Your task to perform on an android device: open app "Google News" Image 0: 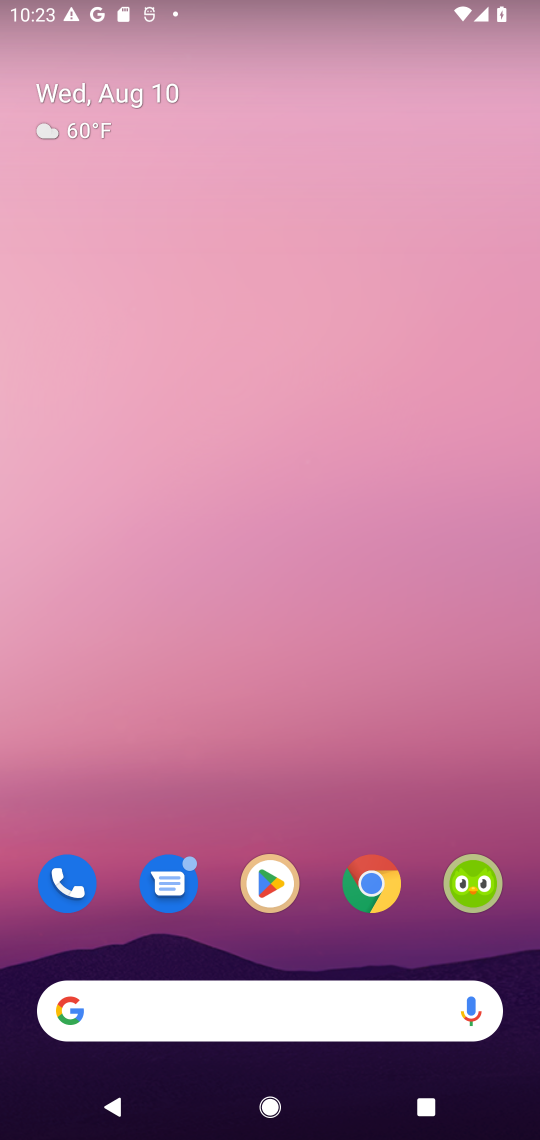
Step 0: drag from (404, 638) to (370, 74)
Your task to perform on an android device: open app "Google News" Image 1: 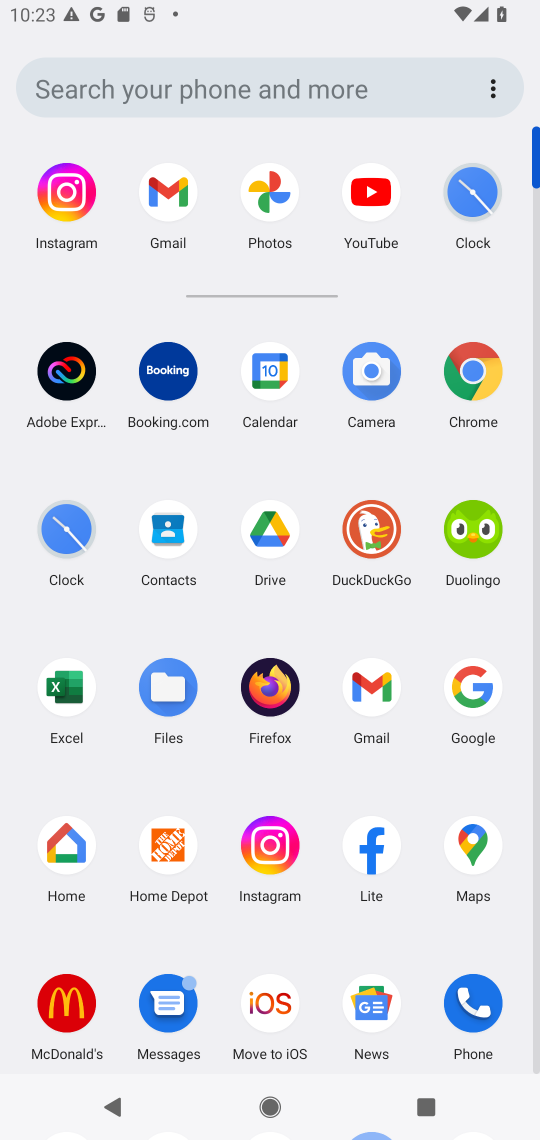
Step 1: drag from (515, 933) to (517, 469)
Your task to perform on an android device: open app "Google News" Image 2: 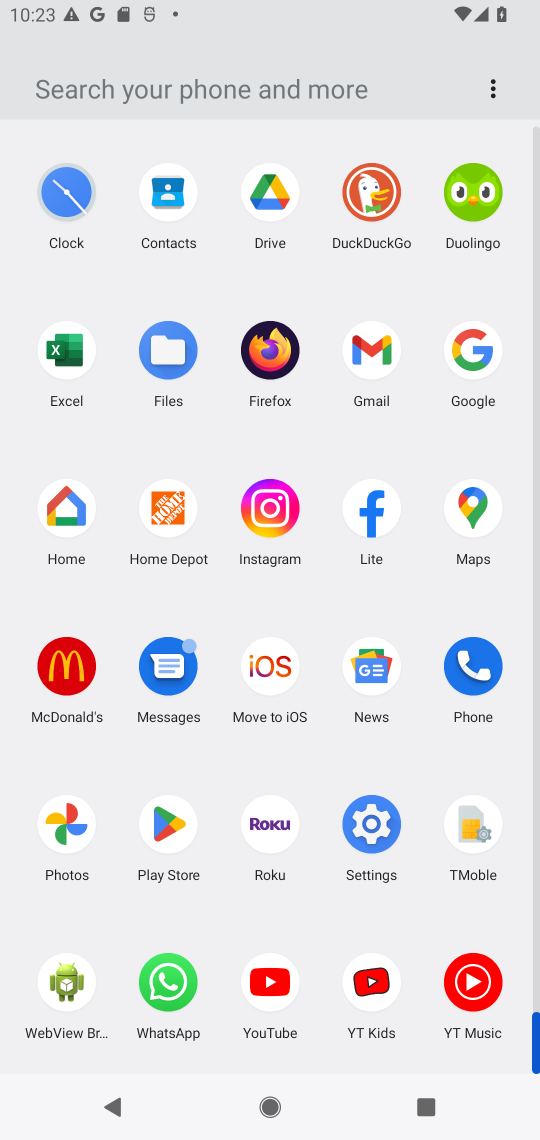
Step 2: click (165, 823)
Your task to perform on an android device: open app "Google News" Image 3: 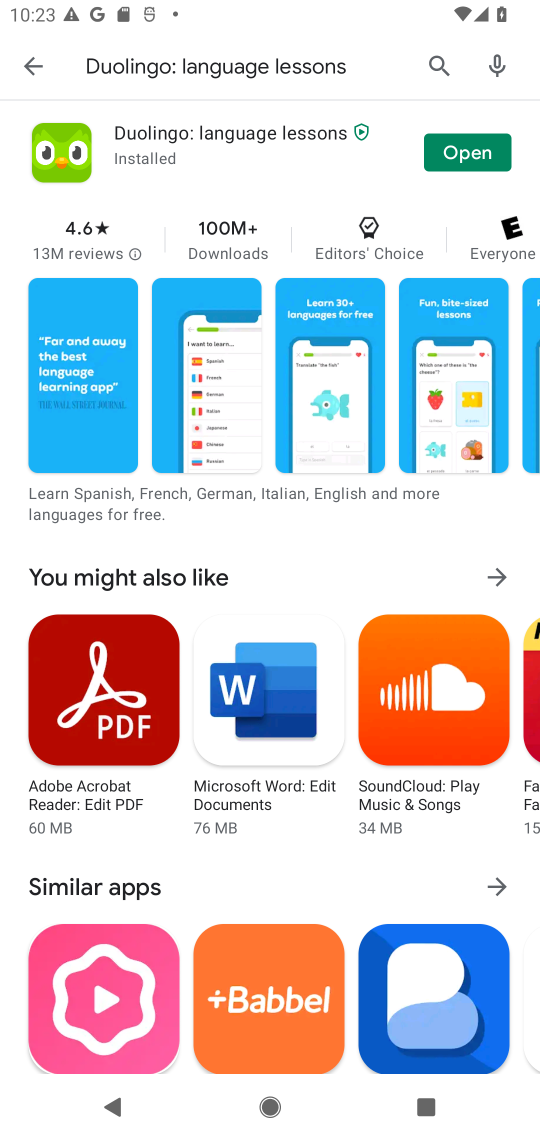
Step 3: click (433, 60)
Your task to perform on an android device: open app "Google News" Image 4: 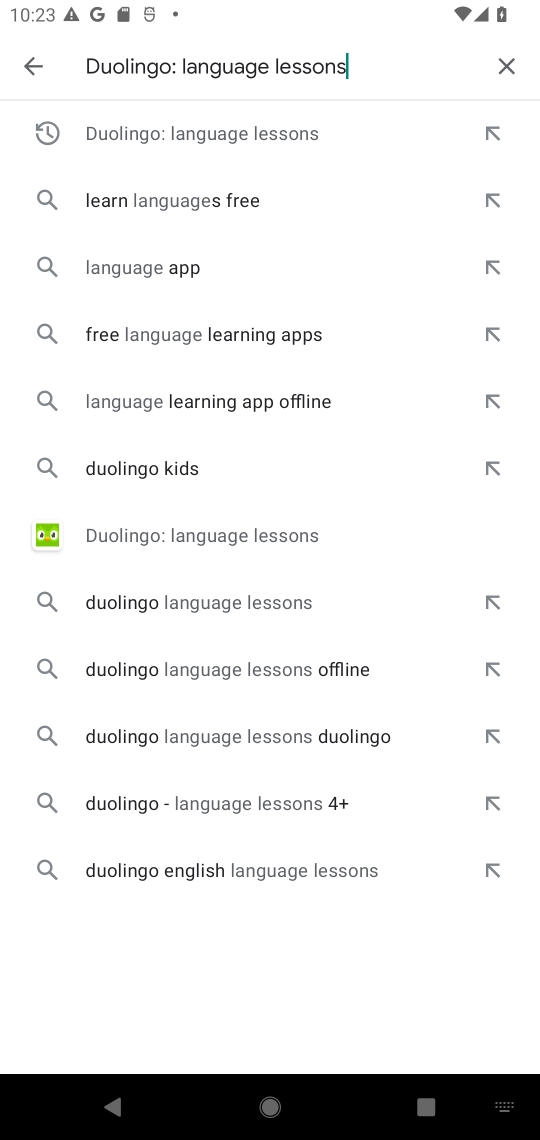
Step 4: click (511, 64)
Your task to perform on an android device: open app "Google News" Image 5: 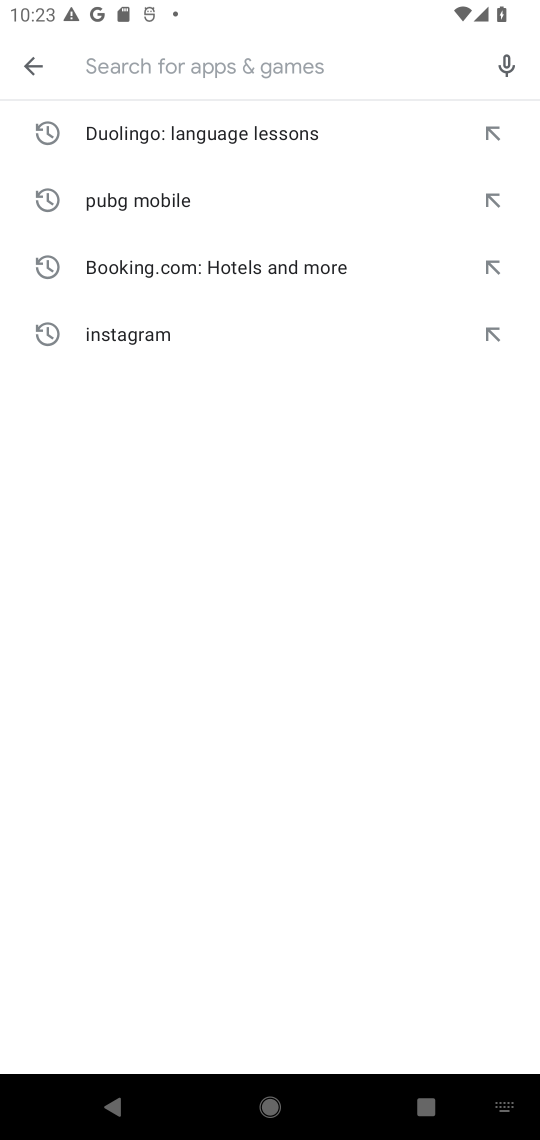
Step 5: type "google news"
Your task to perform on an android device: open app "Google News" Image 6: 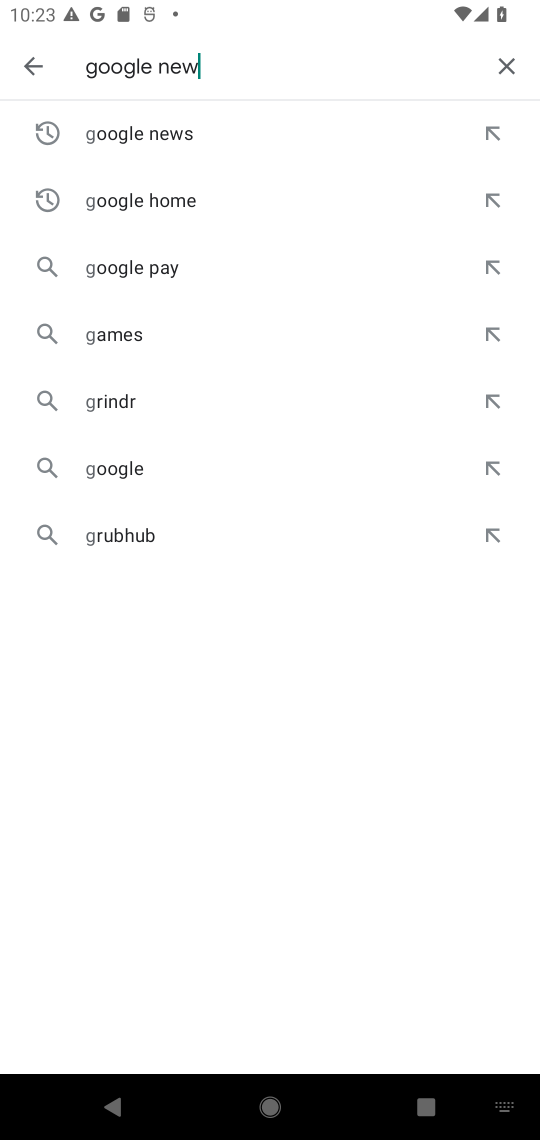
Step 6: press enter
Your task to perform on an android device: open app "Google News" Image 7: 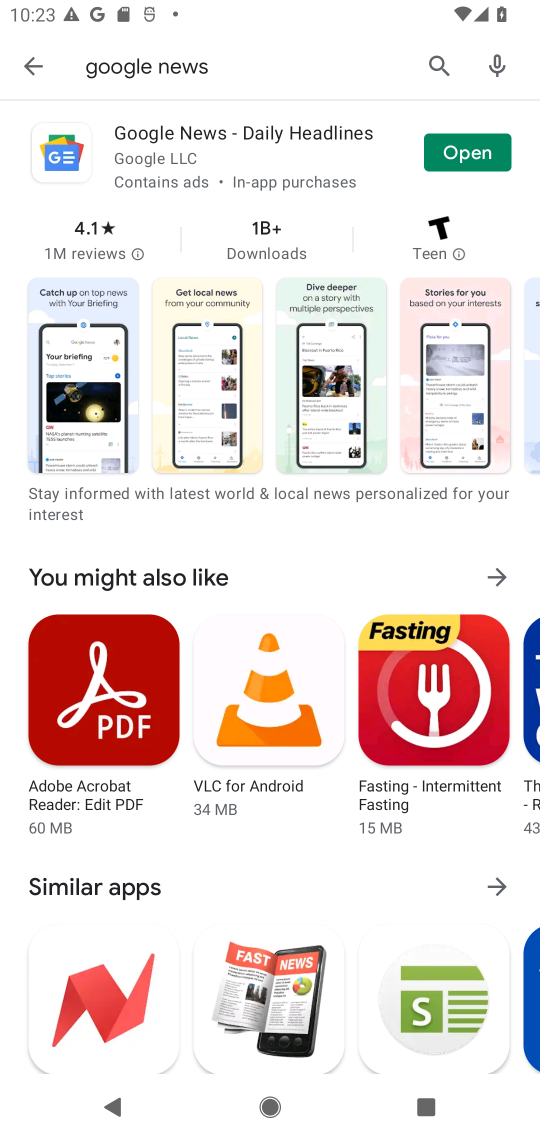
Step 7: click (466, 150)
Your task to perform on an android device: open app "Google News" Image 8: 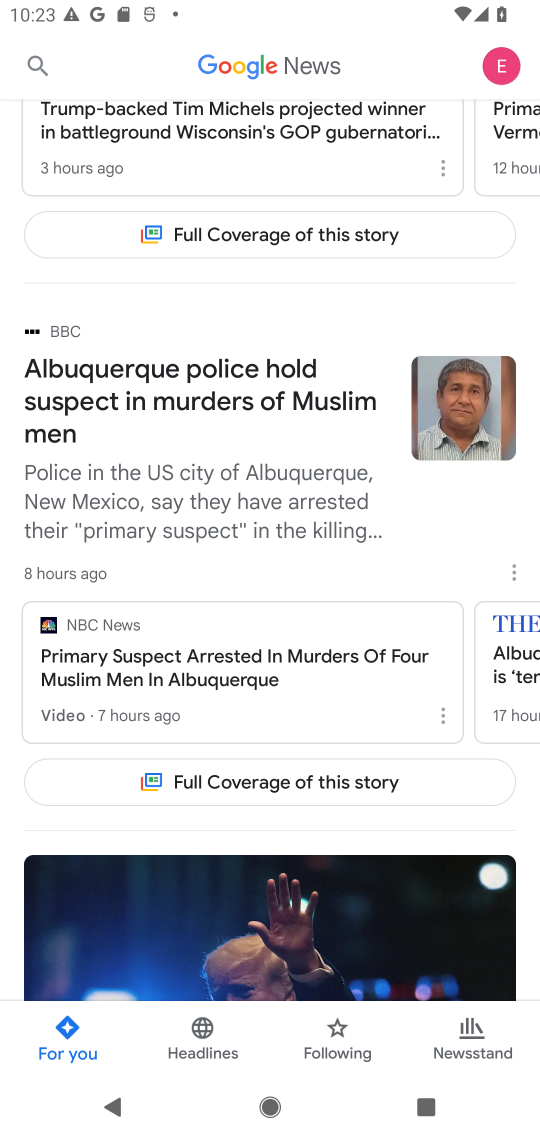
Step 8: task complete